Your task to perform on an android device: Find coffee shops on Maps Image 0: 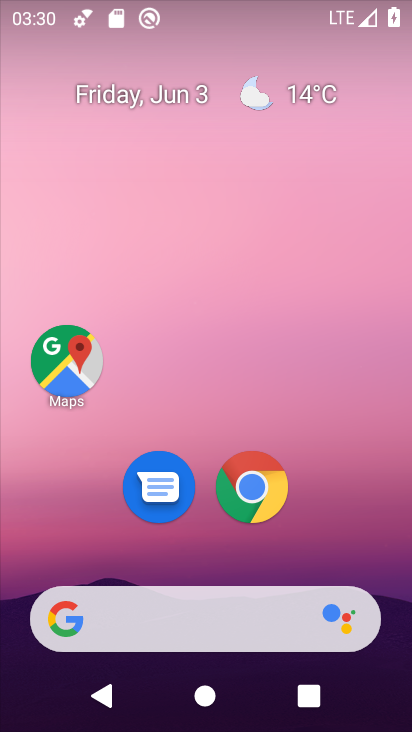
Step 0: click (68, 364)
Your task to perform on an android device: Find coffee shops on Maps Image 1: 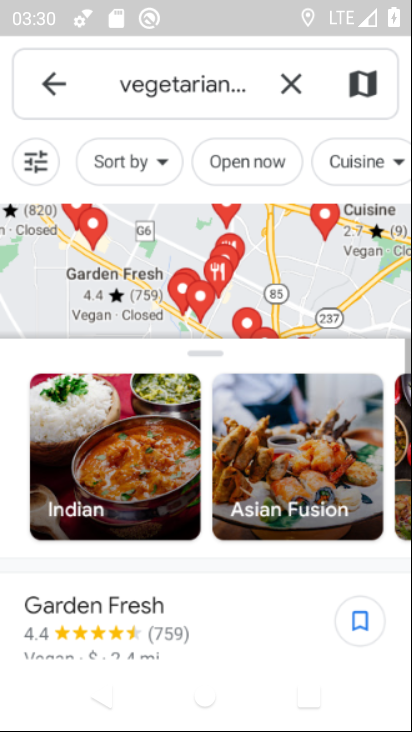
Step 1: click (301, 84)
Your task to perform on an android device: Find coffee shops on Maps Image 2: 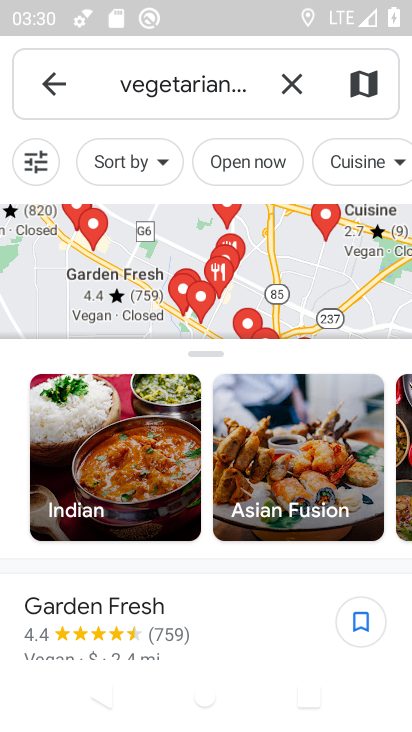
Step 2: click (284, 88)
Your task to perform on an android device: Find coffee shops on Maps Image 3: 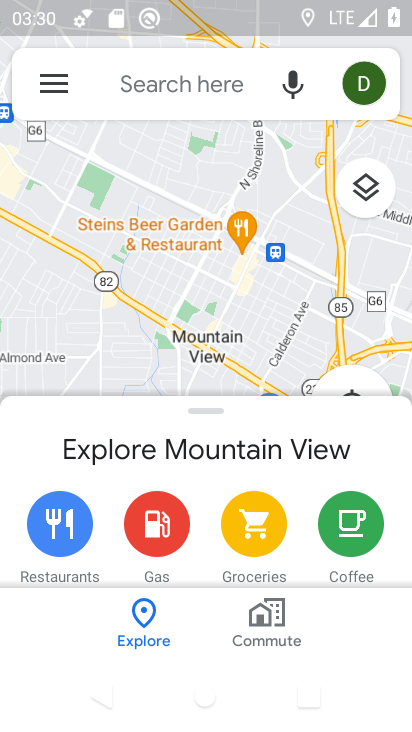
Step 3: click (207, 50)
Your task to perform on an android device: Find coffee shops on Maps Image 4: 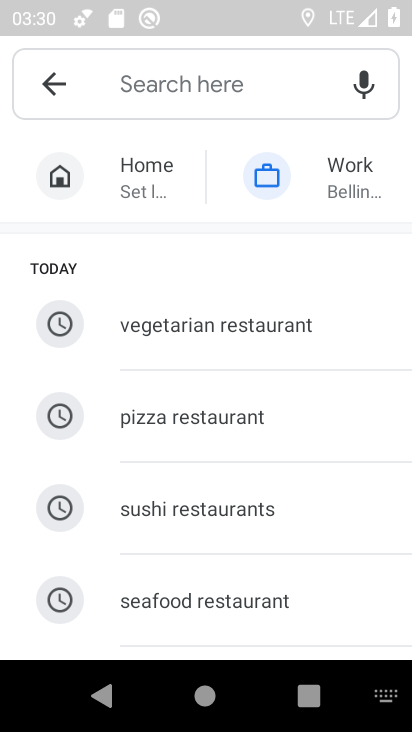
Step 4: drag from (222, 527) to (184, 116)
Your task to perform on an android device: Find coffee shops on Maps Image 5: 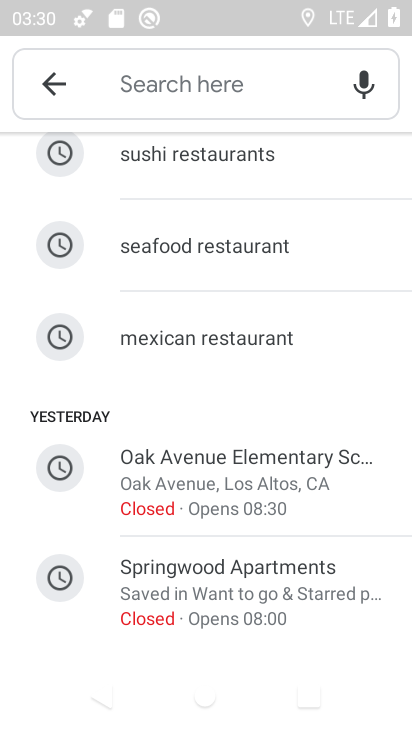
Step 5: type "coffee"
Your task to perform on an android device: Find coffee shops on Maps Image 6: 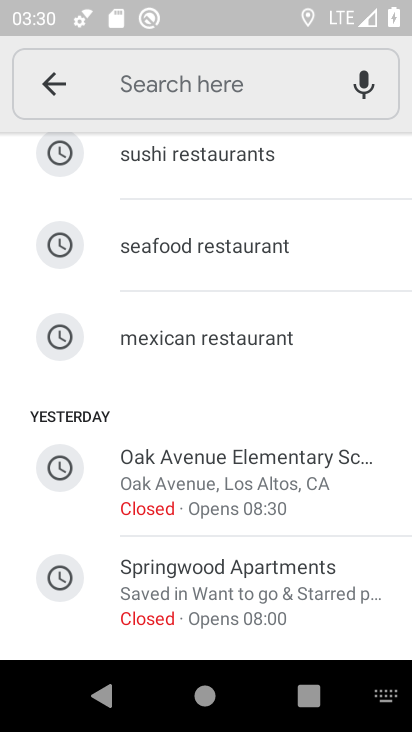
Step 6: click (191, 85)
Your task to perform on an android device: Find coffee shops on Maps Image 7: 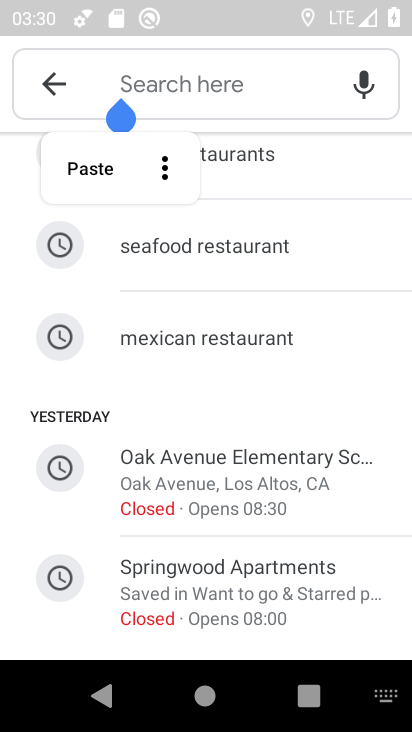
Step 7: type "coffee"
Your task to perform on an android device: Find coffee shops on Maps Image 8: 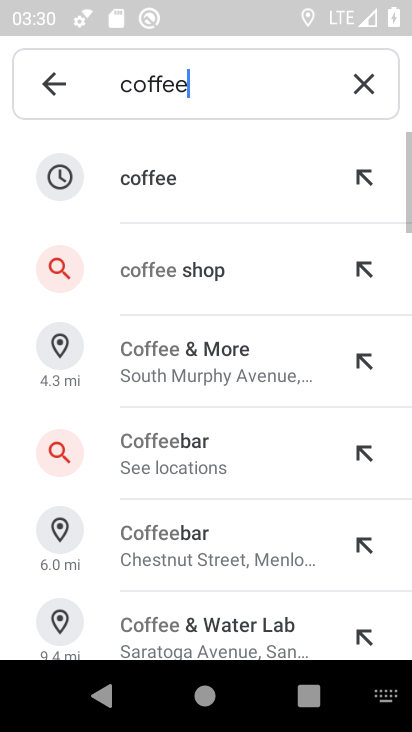
Step 8: click (156, 174)
Your task to perform on an android device: Find coffee shops on Maps Image 9: 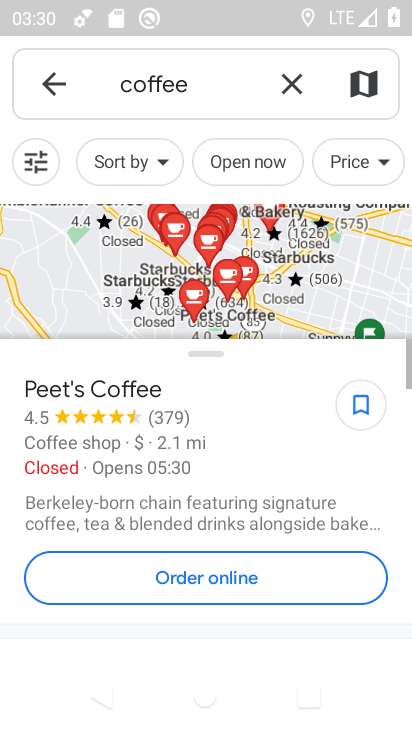
Step 9: task complete